Your task to perform on an android device: see creations saved in the google photos Image 0: 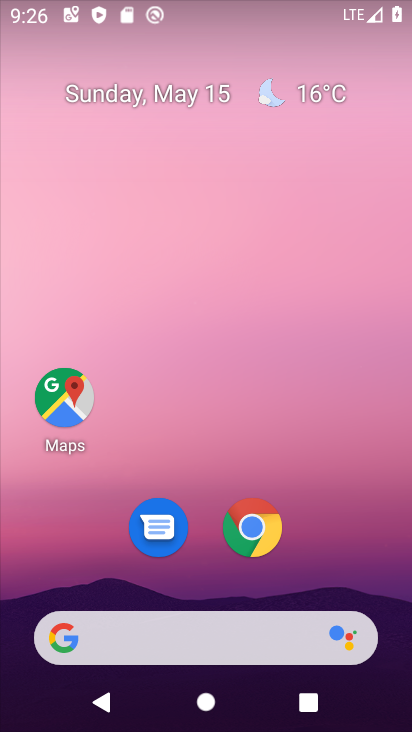
Step 0: drag from (389, 596) to (373, 18)
Your task to perform on an android device: see creations saved in the google photos Image 1: 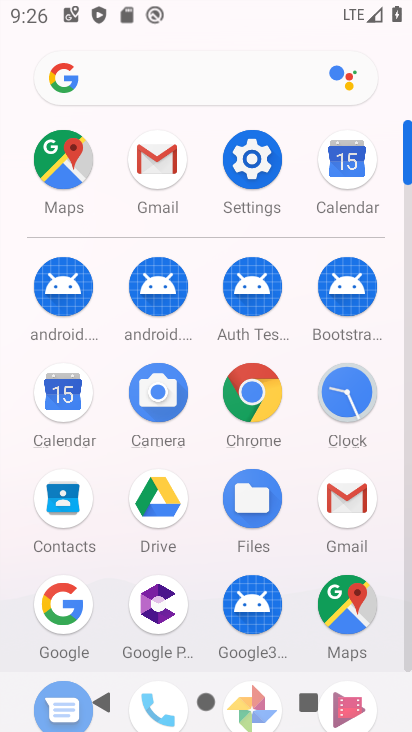
Step 1: click (405, 515)
Your task to perform on an android device: see creations saved in the google photos Image 2: 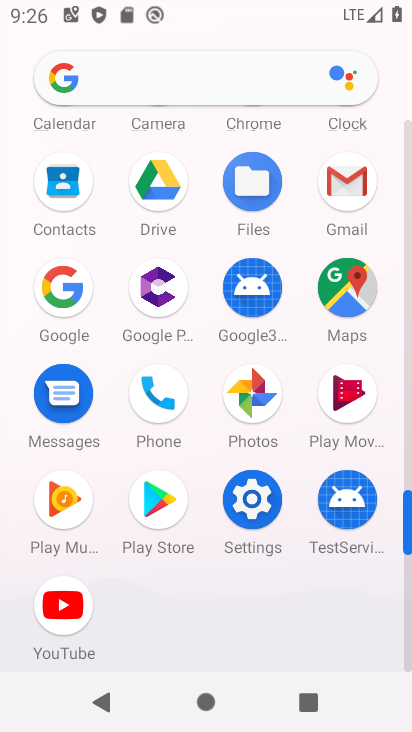
Step 2: click (253, 398)
Your task to perform on an android device: see creations saved in the google photos Image 3: 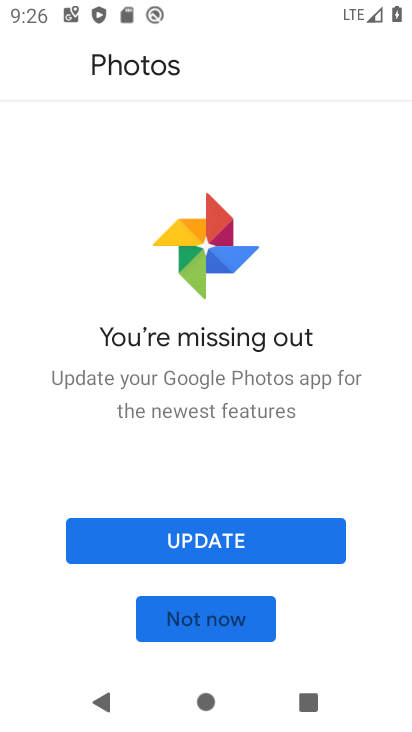
Step 3: click (212, 618)
Your task to perform on an android device: see creations saved in the google photos Image 4: 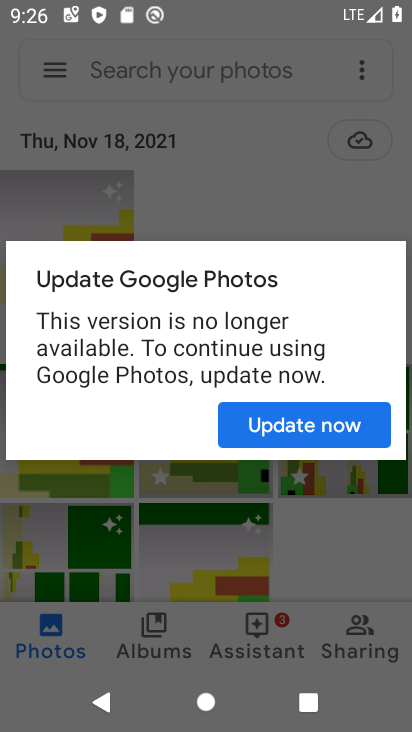
Step 4: click (301, 431)
Your task to perform on an android device: see creations saved in the google photos Image 5: 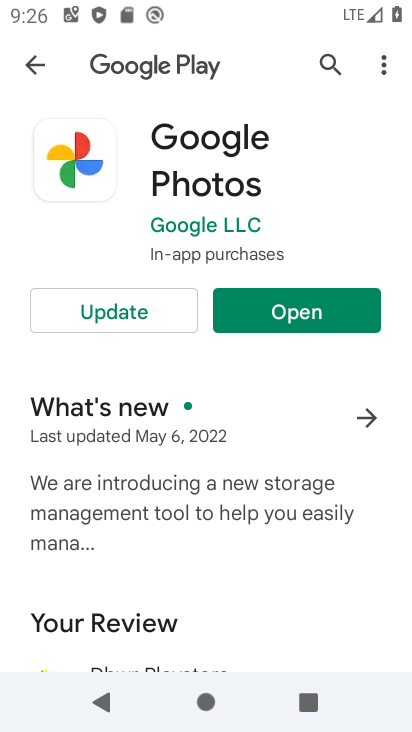
Step 5: click (295, 321)
Your task to perform on an android device: see creations saved in the google photos Image 6: 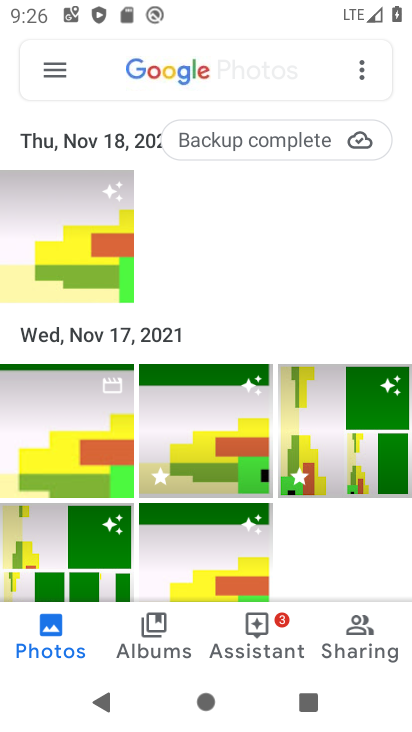
Step 6: click (158, 67)
Your task to perform on an android device: see creations saved in the google photos Image 7: 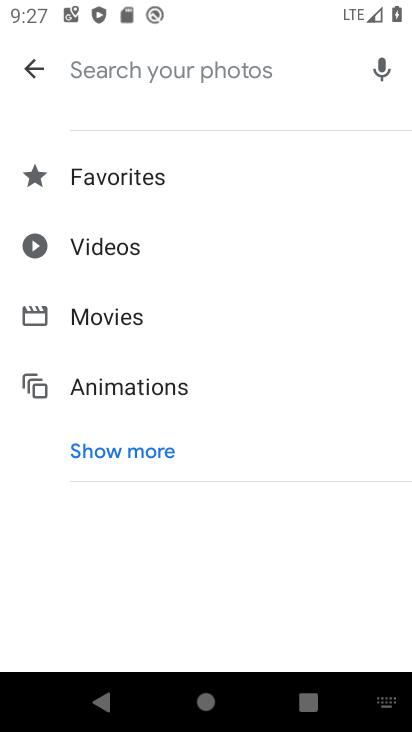
Step 7: click (126, 454)
Your task to perform on an android device: see creations saved in the google photos Image 8: 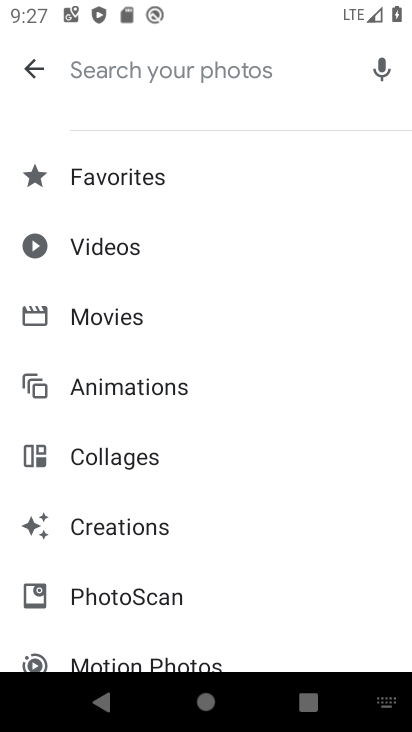
Step 8: click (108, 522)
Your task to perform on an android device: see creations saved in the google photos Image 9: 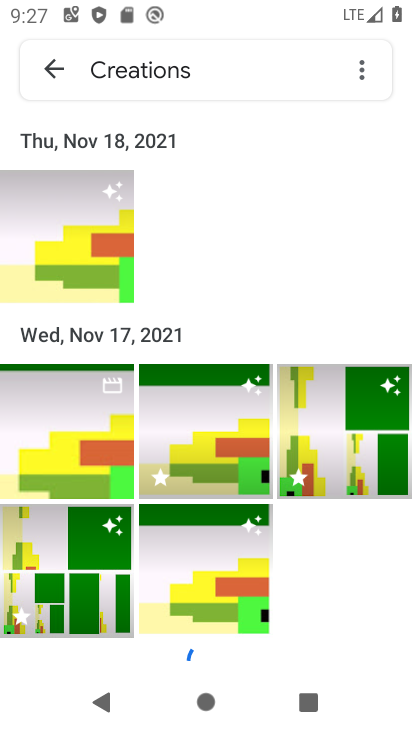
Step 9: task complete